Your task to perform on an android device: turn off sleep mode Image 0: 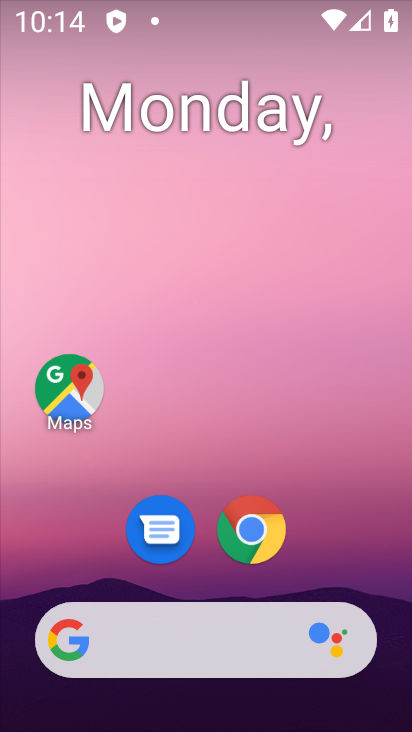
Step 0: drag from (320, 549) to (254, 129)
Your task to perform on an android device: turn off sleep mode Image 1: 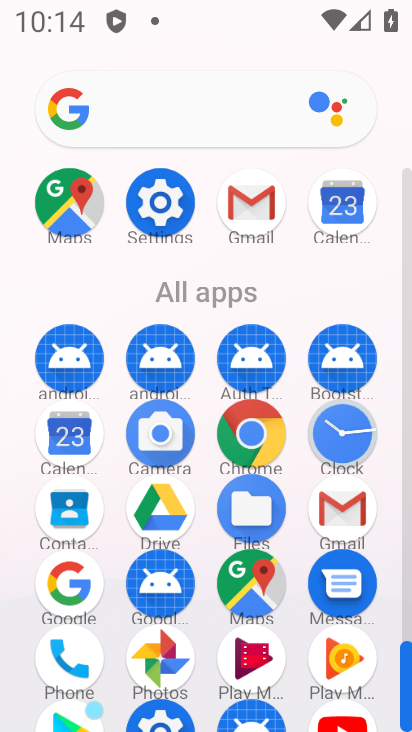
Step 1: click (156, 193)
Your task to perform on an android device: turn off sleep mode Image 2: 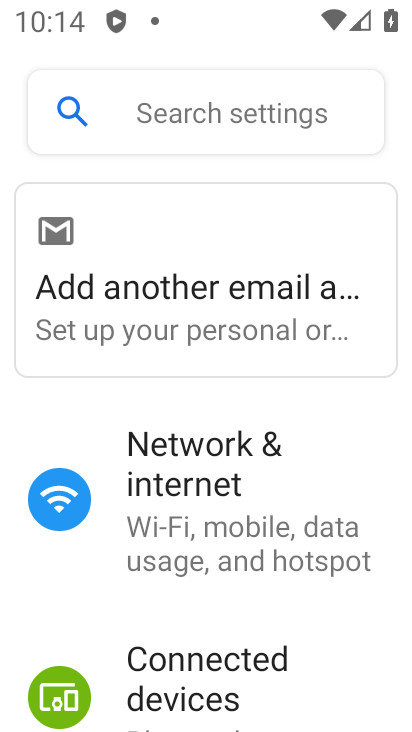
Step 2: click (221, 200)
Your task to perform on an android device: turn off sleep mode Image 3: 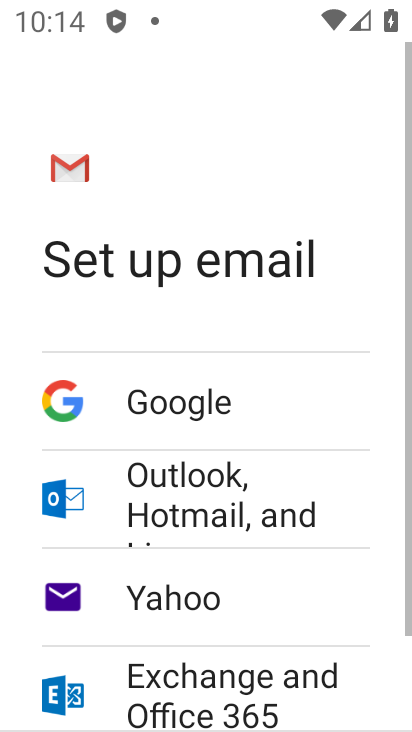
Step 3: drag from (102, 613) to (81, 223)
Your task to perform on an android device: turn off sleep mode Image 4: 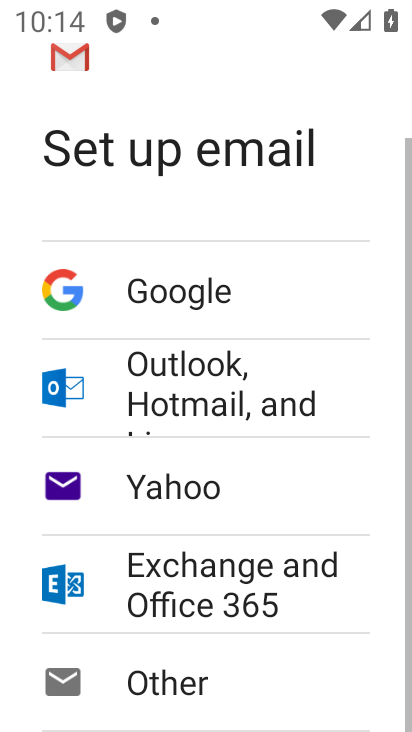
Step 4: press back button
Your task to perform on an android device: turn off sleep mode Image 5: 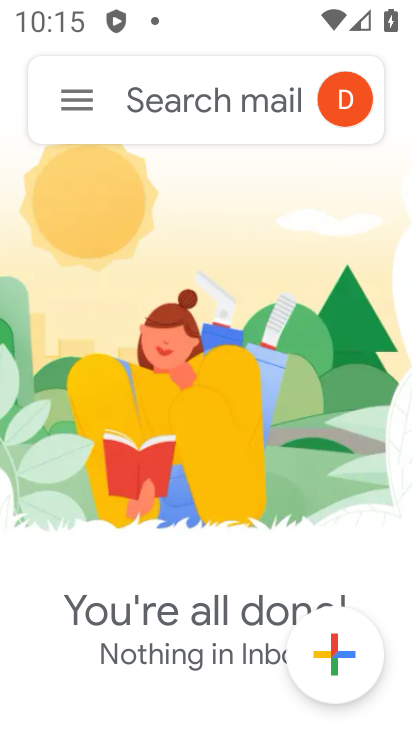
Step 5: click (77, 99)
Your task to perform on an android device: turn off sleep mode Image 6: 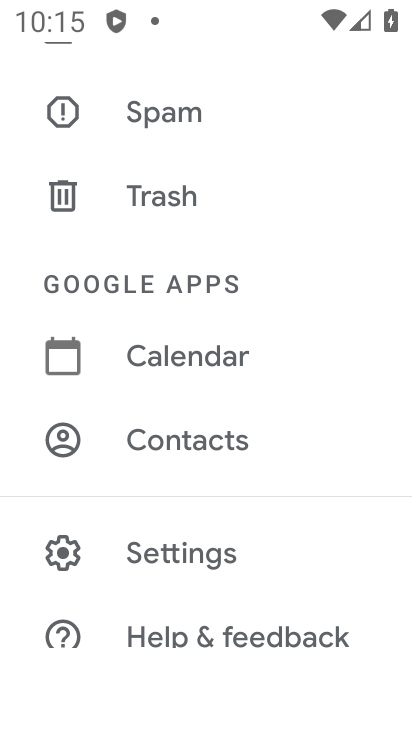
Step 6: task complete